Your task to perform on an android device: Search for sushi restaurants on Maps Image 0: 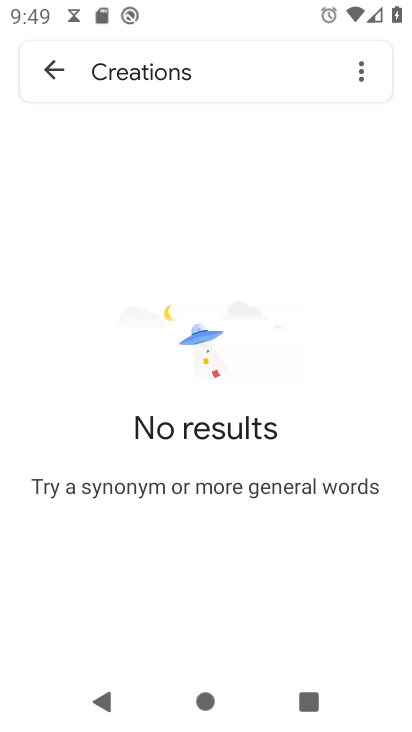
Step 0: press home button
Your task to perform on an android device: Search for sushi restaurants on Maps Image 1: 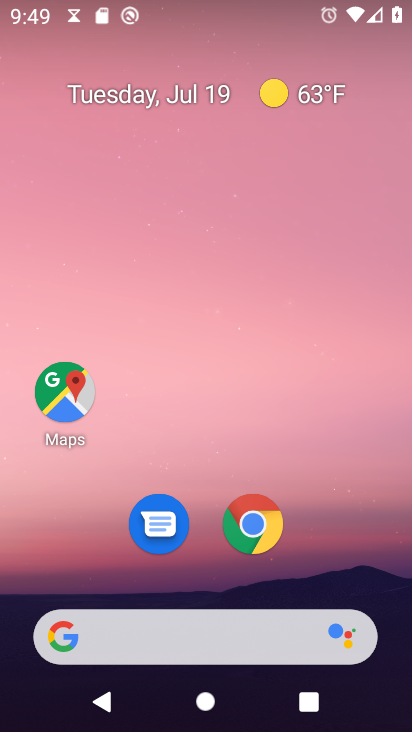
Step 1: click (66, 392)
Your task to perform on an android device: Search for sushi restaurants on Maps Image 2: 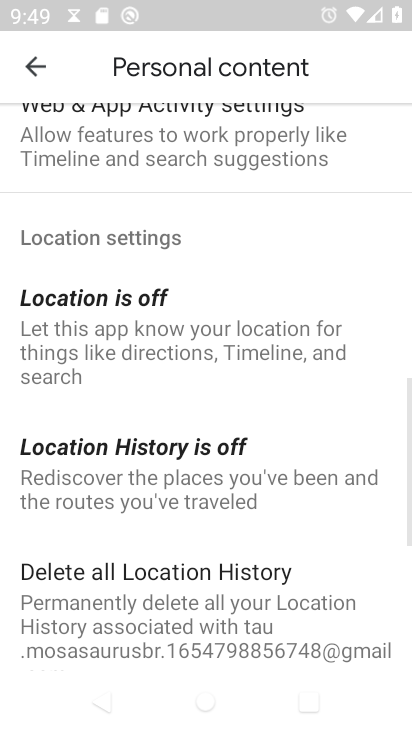
Step 2: click (35, 66)
Your task to perform on an android device: Search for sushi restaurants on Maps Image 3: 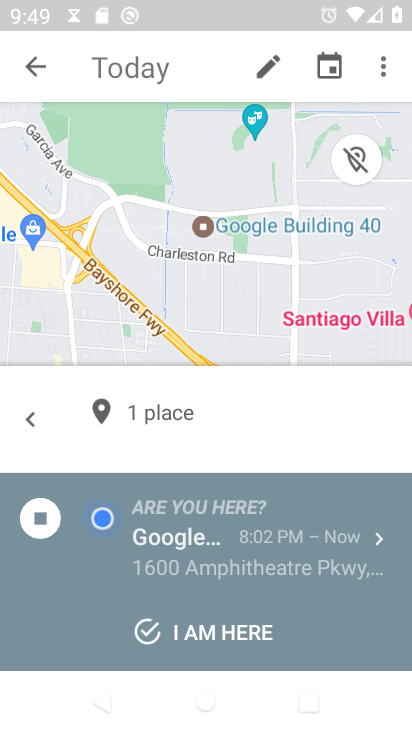
Step 3: click (35, 66)
Your task to perform on an android device: Search for sushi restaurants on Maps Image 4: 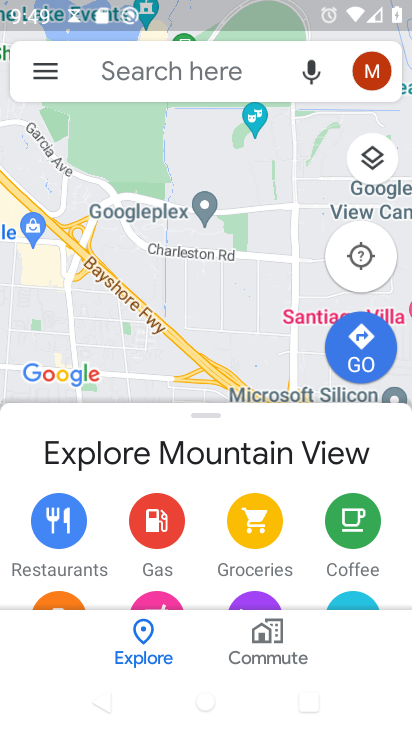
Step 4: click (171, 74)
Your task to perform on an android device: Search for sushi restaurants on Maps Image 5: 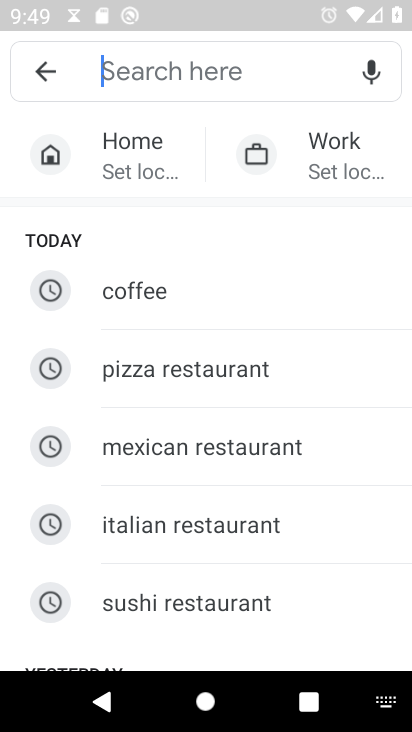
Step 5: click (234, 602)
Your task to perform on an android device: Search for sushi restaurants on Maps Image 6: 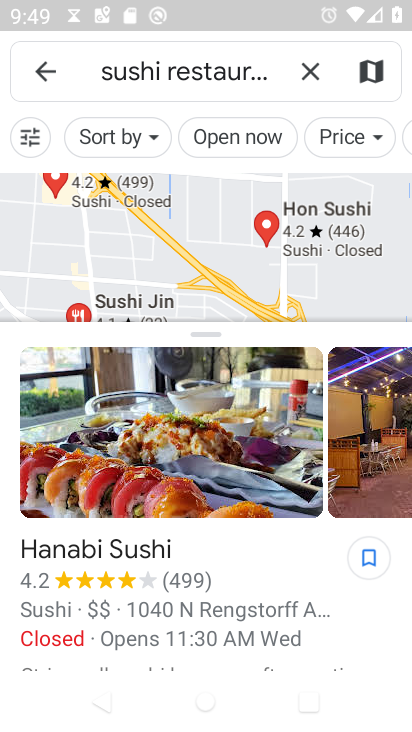
Step 6: task complete